Your task to perform on an android device: turn off priority inbox in the gmail app Image 0: 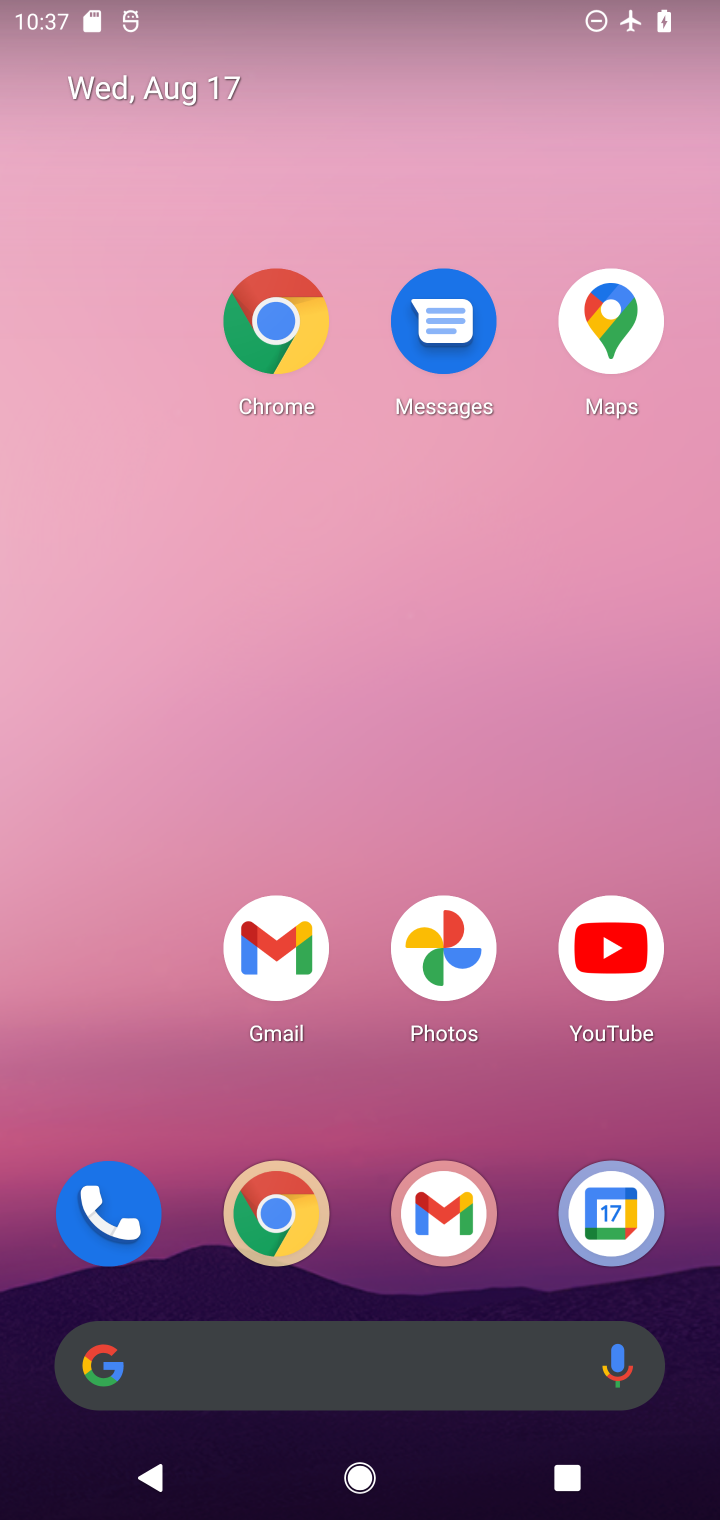
Step 0: click (464, 1241)
Your task to perform on an android device: turn off priority inbox in the gmail app Image 1: 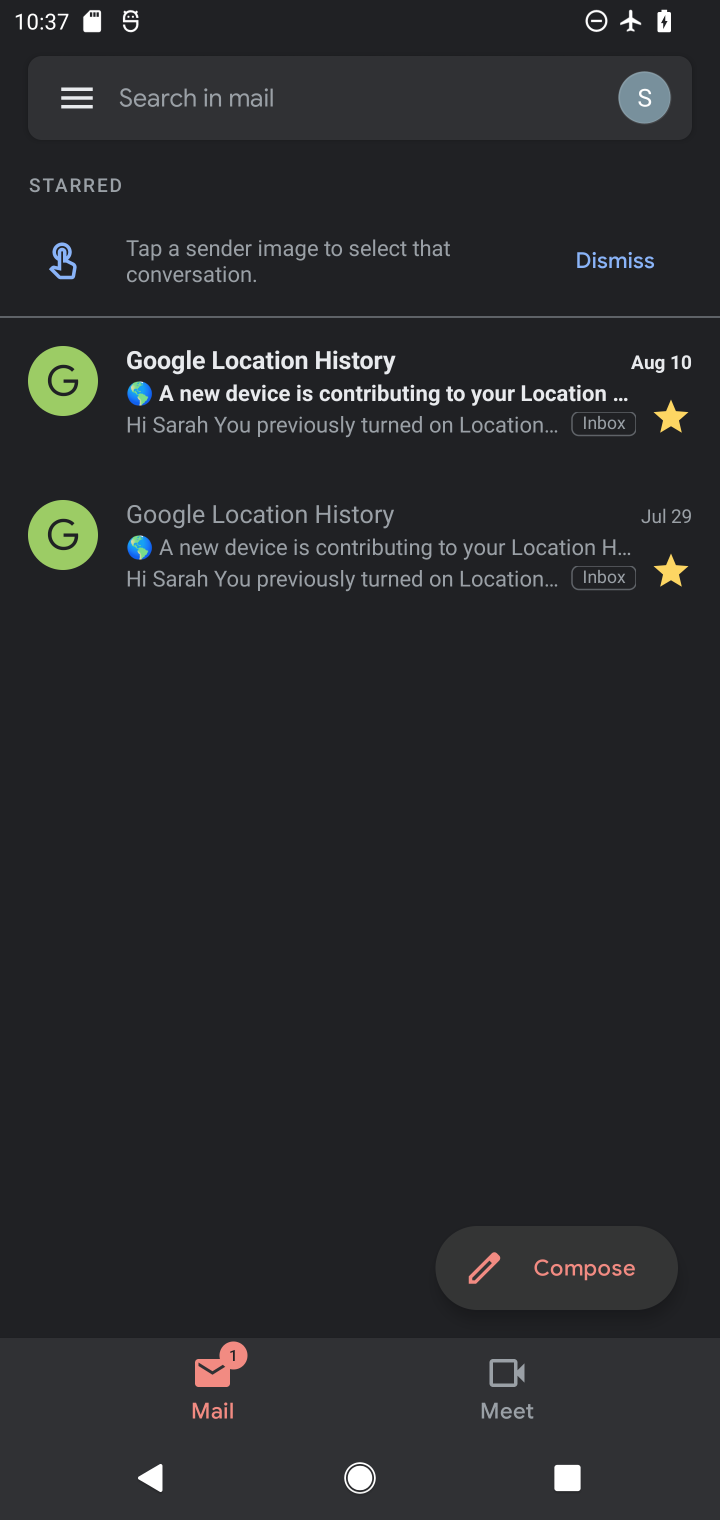
Step 1: click (400, 94)
Your task to perform on an android device: turn off priority inbox in the gmail app Image 2: 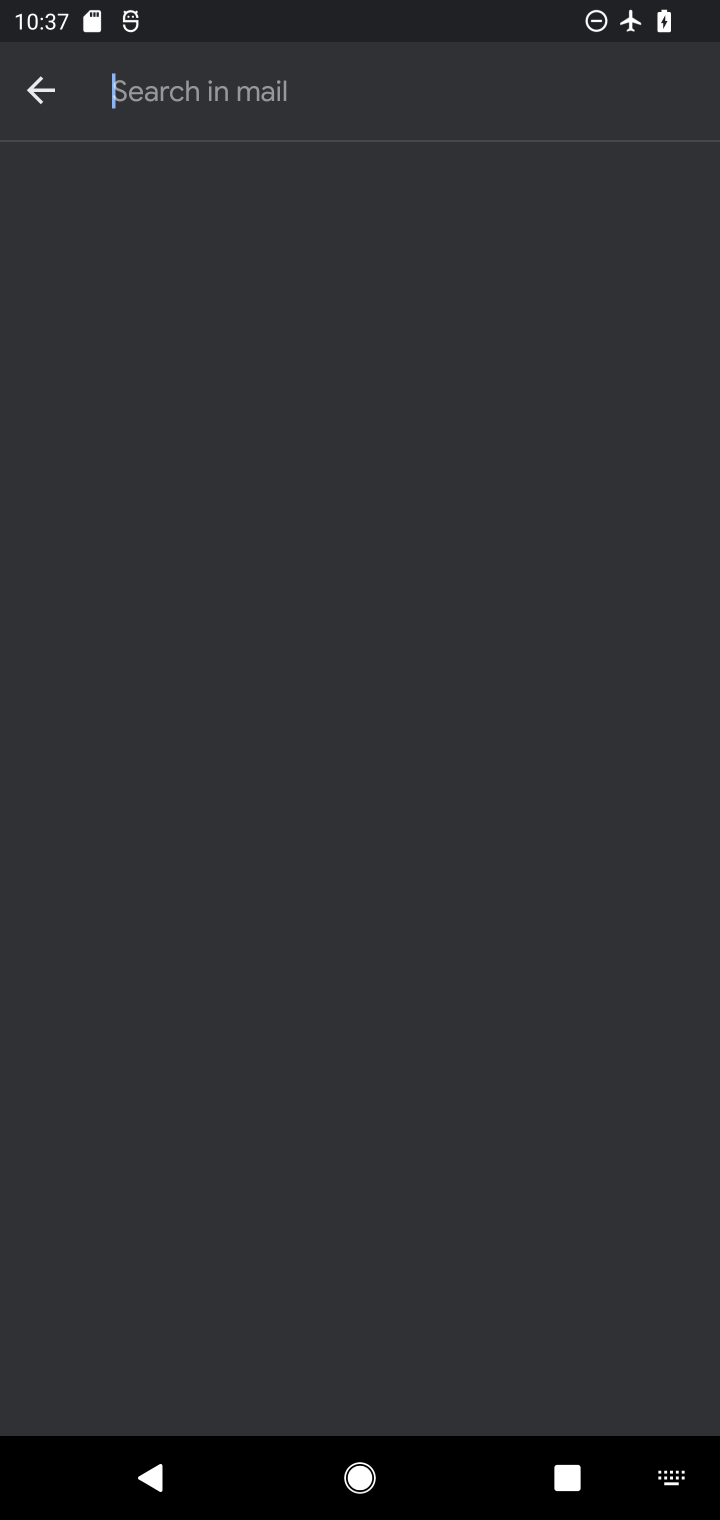
Step 2: type "gmail.com"
Your task to perform on an android device: turn off priority inbox in the gmail app Image 3: 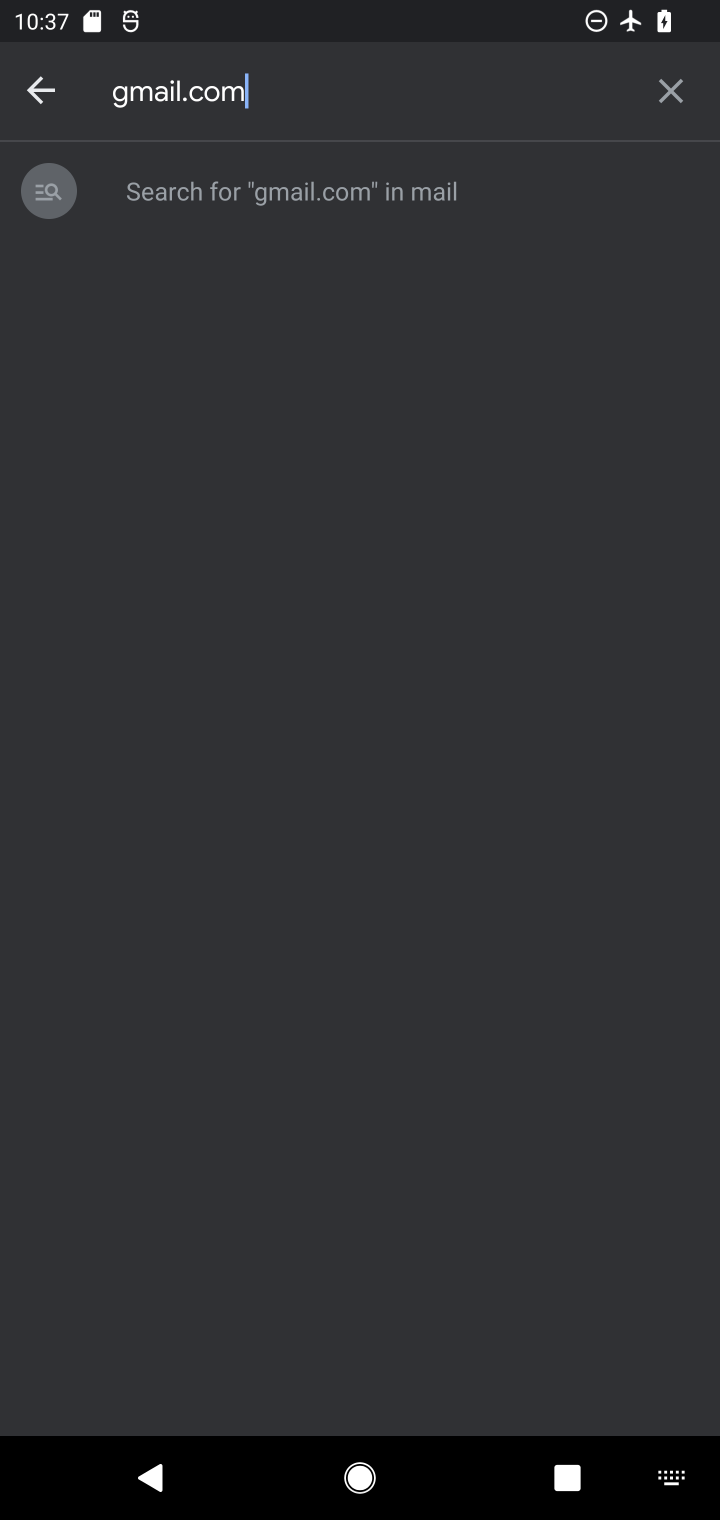
Step 3: click (267, 209)
Your task to perform on an android device: turn off priority inbox in the gmail app Image 4: 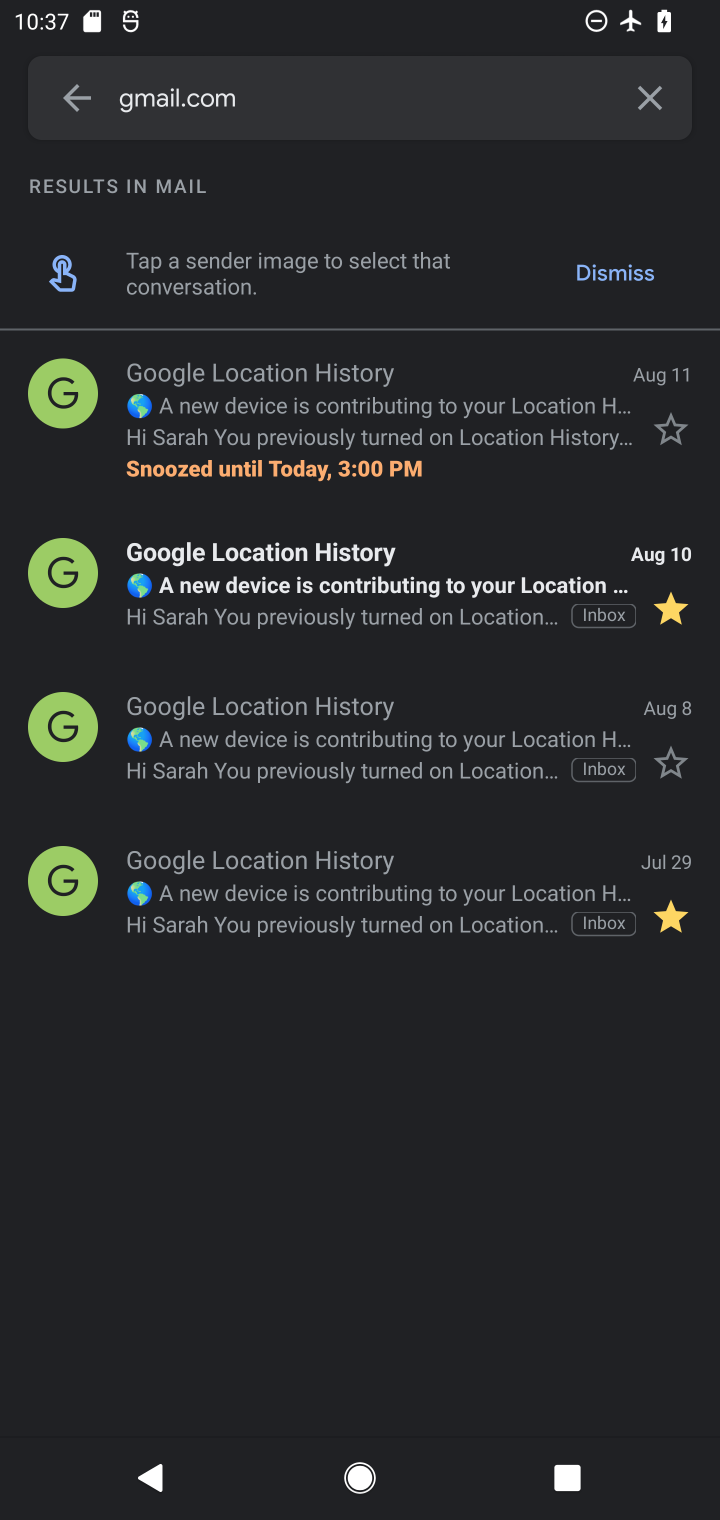
Step 4: task complete